Your task to perform on an android device: turn on wifi Image 0: 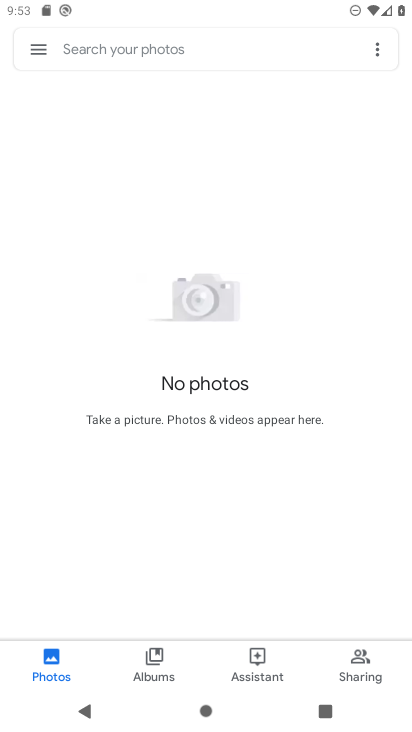
Step 0: drag from (122, 8) to (148, 471)
Your task to perform on an android device: turn on wifi Image 1: 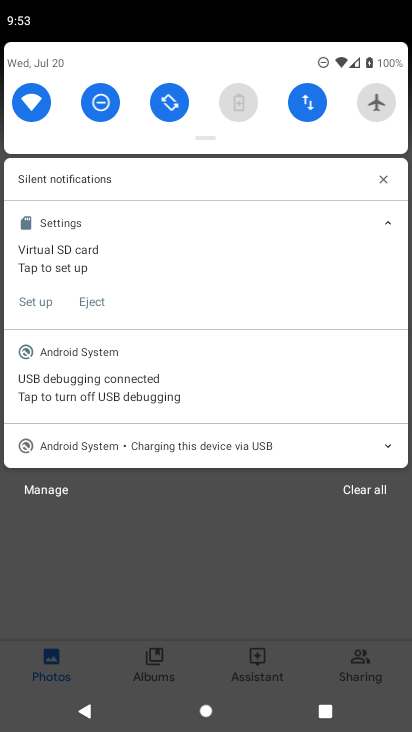
Step 1: task complete